Your task to perform on an android device: turn pop-ups off in chrome Image 0: 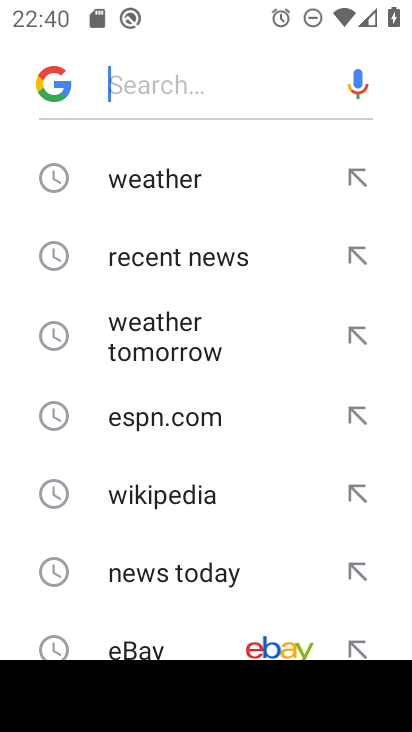
Step 0: drag from (202, 541) to (265, 224)
Your task to perform on an android device: turn pop-ups off in chrome Image 1: 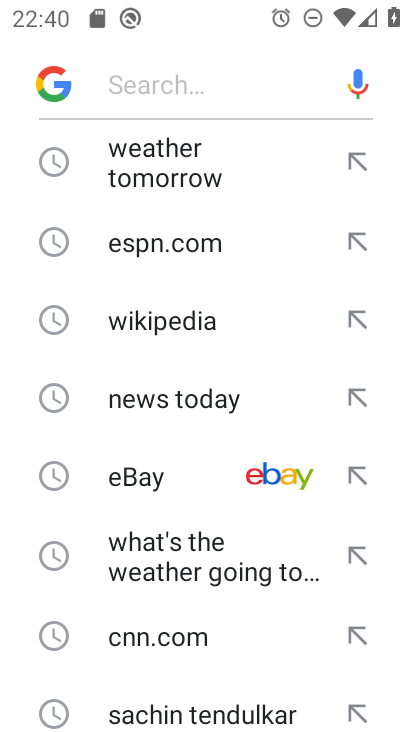
Step 1: press back button
Your task to perform on an android device: turn pop-ups off in chrome Image 2: 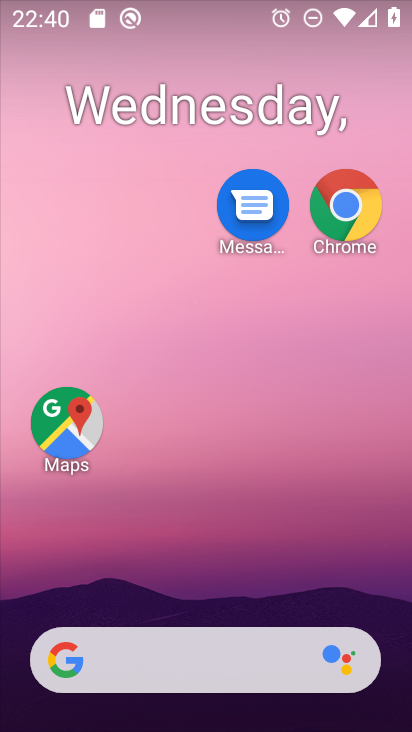
Step 2: click (345, 205)
Your task to perform on an android device: turn pop-ups off in chrome Image 3: 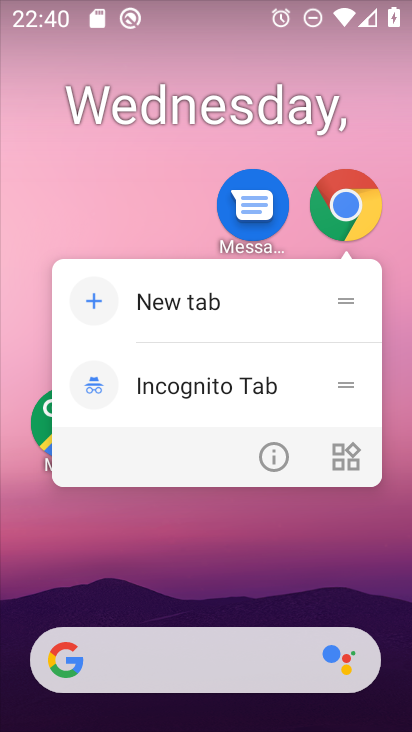
Step 3: click (280, 448)
Your task to perform on an android device: turn pop-ups off in chrome Image 4: 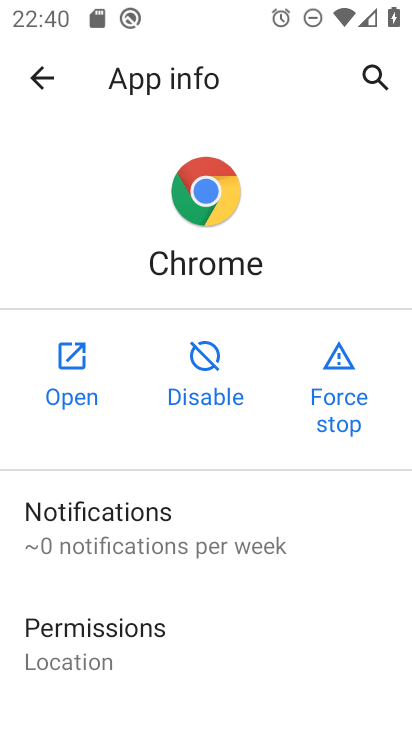
Step 4: click (78, 371)
Your task to perform on an android device: turn pop-ups off in chrome Image 5: 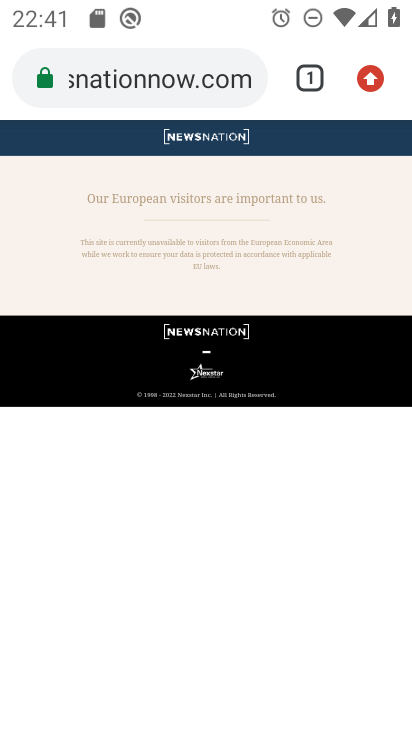
Step 5: drag from (276, 293) to (292, 524)
Your task to perform on an android device: turn pop-ups off in chrome Image 6: 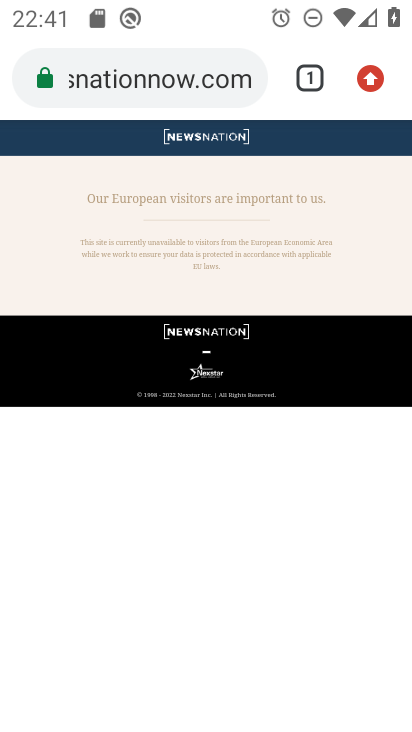
Step 6: drag from (388, 75) to (142, 616)
Your task to perform on an android device: turn pop-ups off in chrome Image 7: 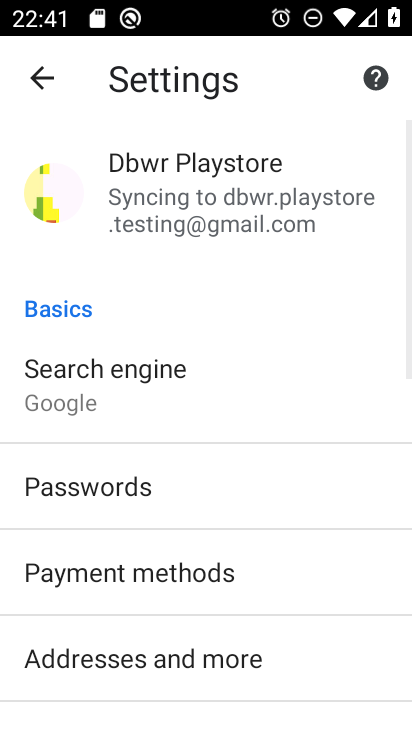
Step 7: drag from (168, 560) to (295, 20)
Your task to perform on an android device: turn pop-ups off in chrome Image 8: 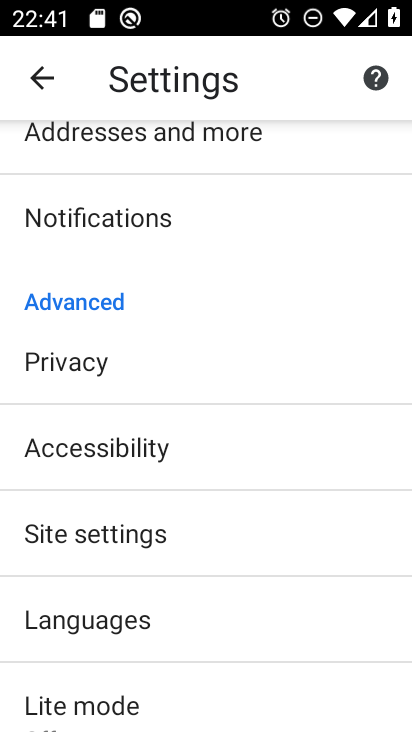
Step 8: drag from (219, 361) to (253, 8)
Your task to perform on an android device: turn pop-ups off in chrome Image 9: 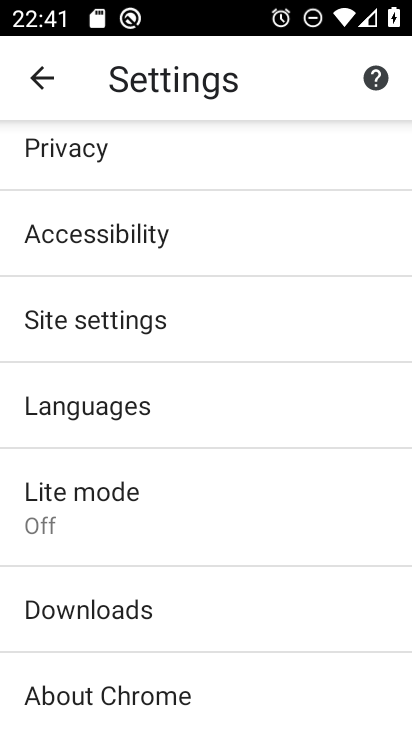
Step 9: click (160, 322)
Your task to perform on an android device: turn pop-ups off in chrome Image 10: 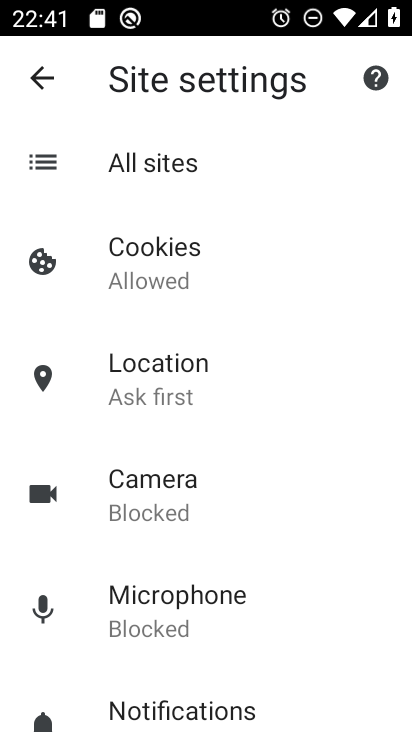
Step 10: drag from (228, 508) to (246, 259)
Your task to perform on an android device: turn pop-ups off in chrome Image 11: 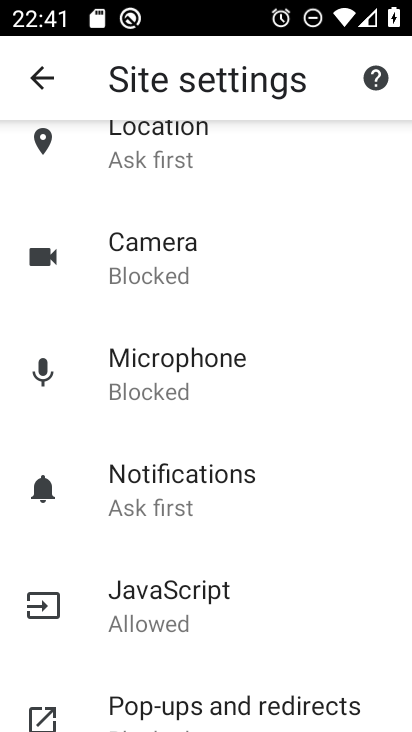
Step 11: drag from (209, 589) to (217, 254)
Your task to perform on an android device: turn pop-ups off in chrome Image 12: 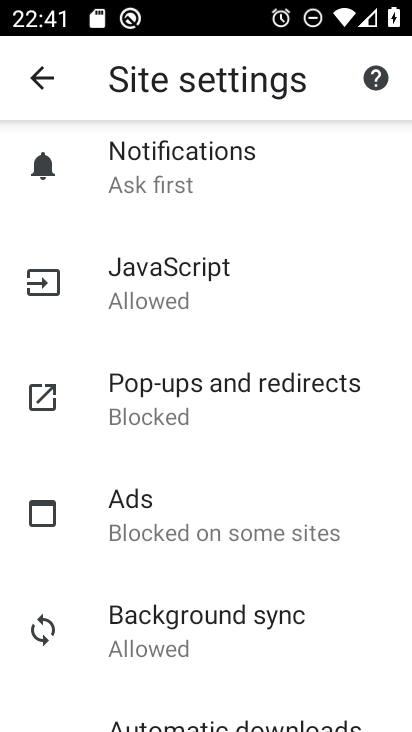
Step 12: click (222, 369)
Your task to perform on an android device: turn pop-ups off in chrome Image 13: 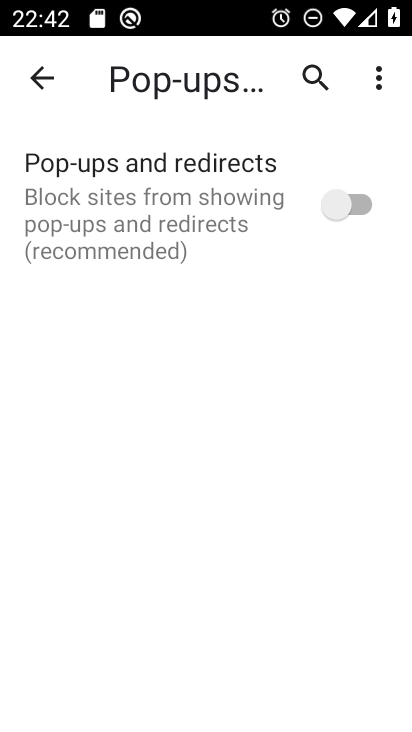
Step 13: task complete